Your task to perform on an android device: check google app version Image 0: 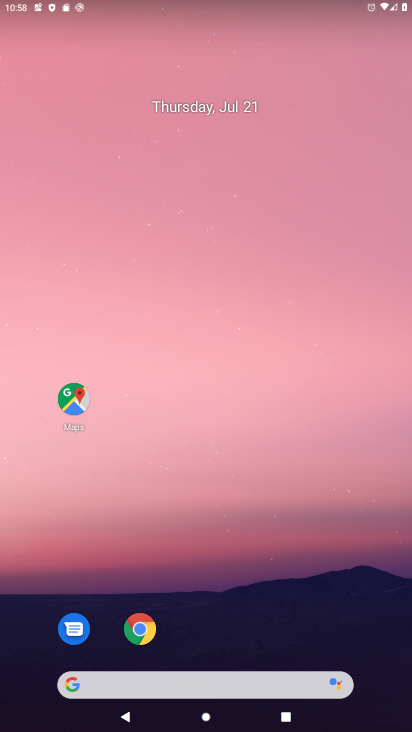
Step 0: click (149, 699)
Your task to perform on an android device: check google app version Image 1: 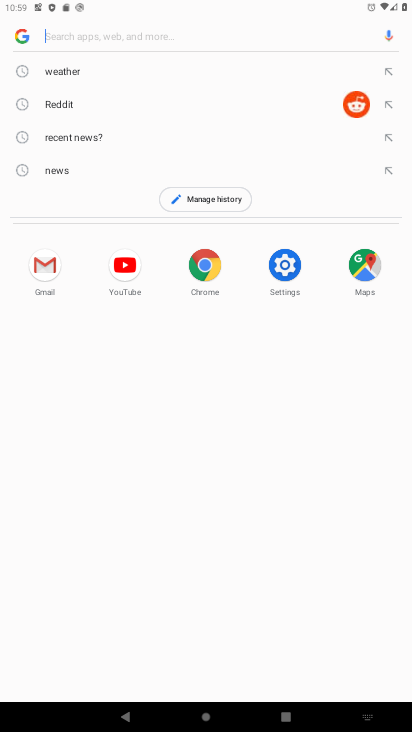
Step 1: click (32, 40)
Your task to perform on an android device: check google app version Image 2: 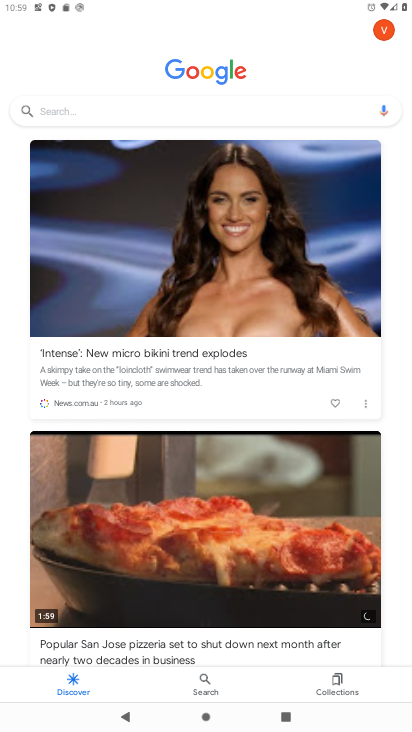
Step 2: click (392, 36)
Your task to perform on an android device: check google app version Image 3: 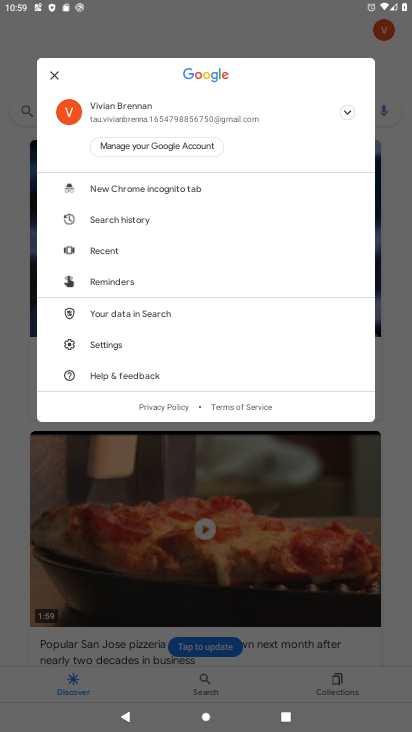
Step 3: click (120, 346)
Your task to perform on an android device: check google app version Image 4: 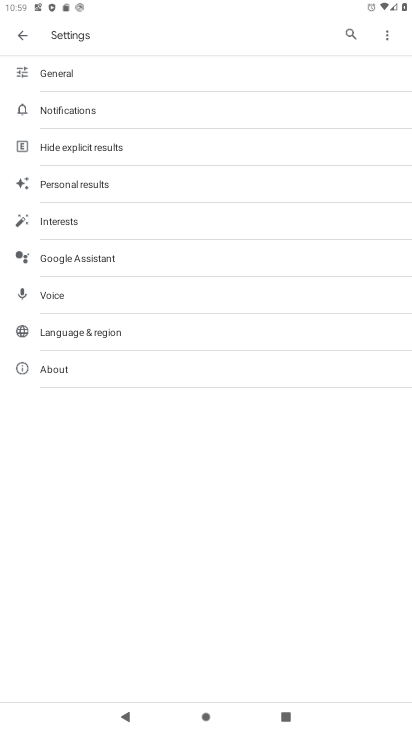
Step 4: click (81, 379)
Your task to perform on an android device: check google app version Image 5: 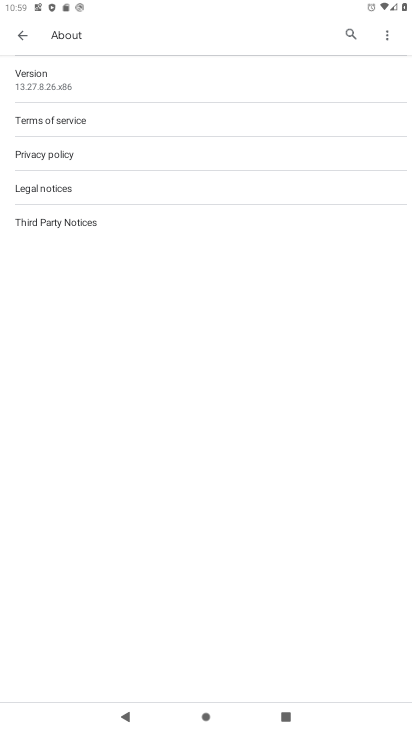
Step 5: task complete